Your task to perform on an android device: see sites visited before in the chrome app Image 0: 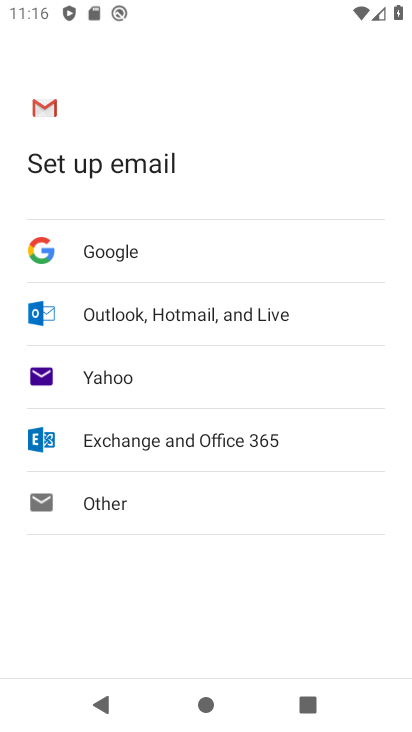
Step 0: press home button
Your task to perform on an android device: see sites visited before in the chrome app Image 1: 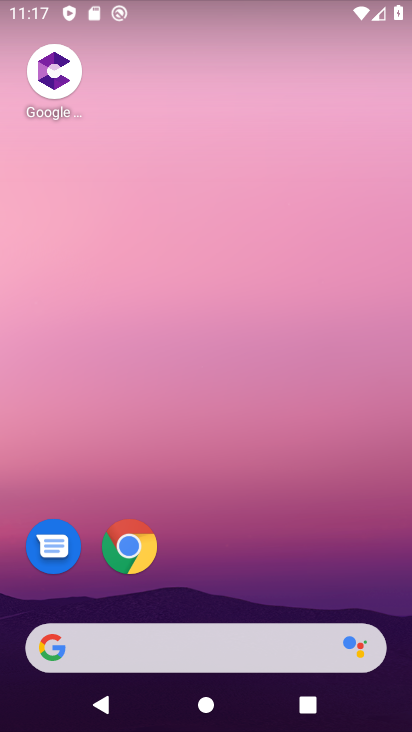
Step 1: click (111, 567)
Your task to perform on an android device: see sites visited before in the chrome app Image 2: 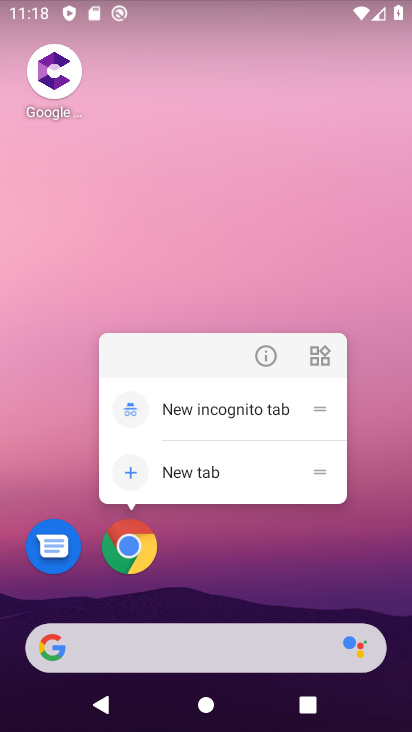
Step 2: click (133, 566)
Your task to perform on an android device: see sites visited before in the chrome app Image 3: 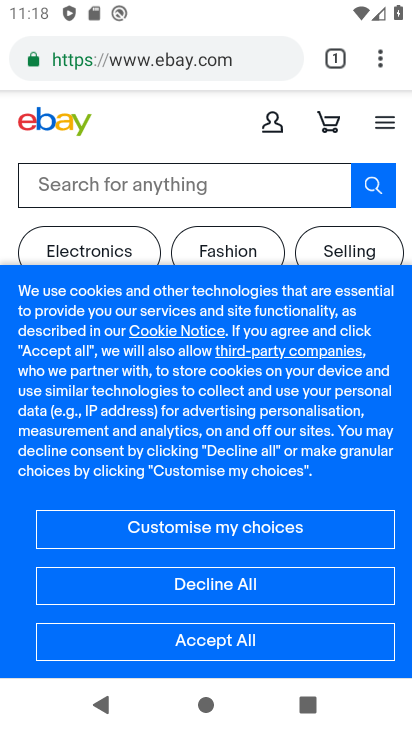
Step 3: click (377, 53)
Your task to perform on an android device: see sites visited before in the chrome app Image 4: 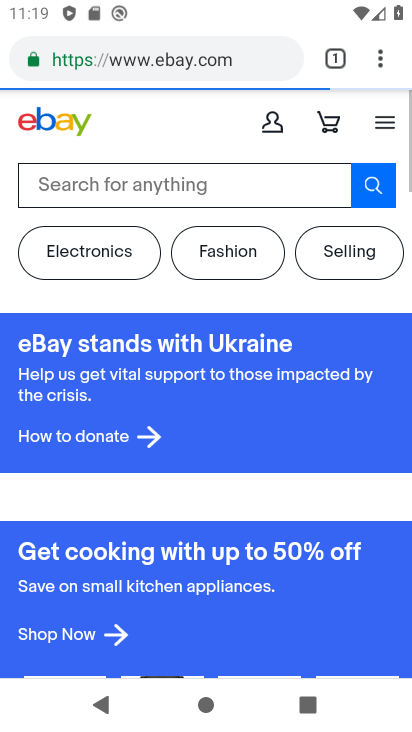
Step 4: task complete